Your task to perform on an android device: delete a single message in the gmail app Image 0: 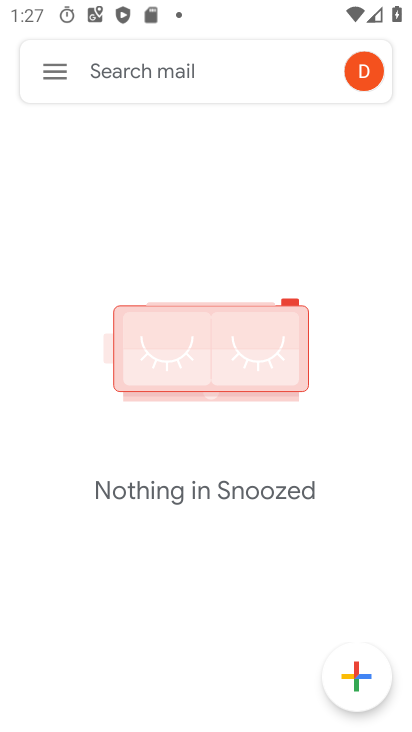
Step 0: press home button
Your task to perform on an android device: delete a single message in the gmail app Image 1: 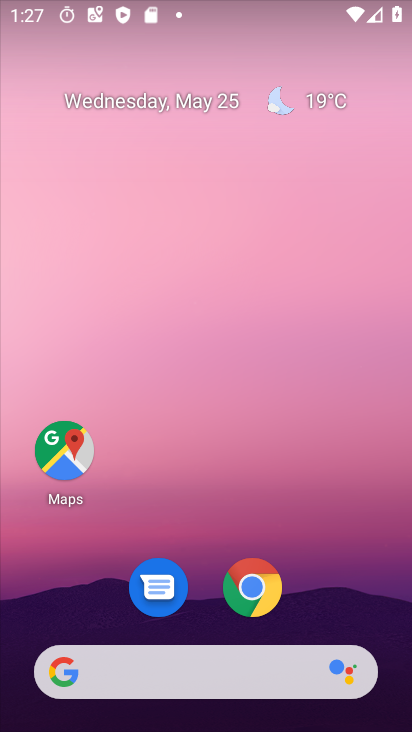
Step 1: drag from (265, 725) to (258, 154)
Your task to perform on an android device: delete a single message in the gmail app Image 2: 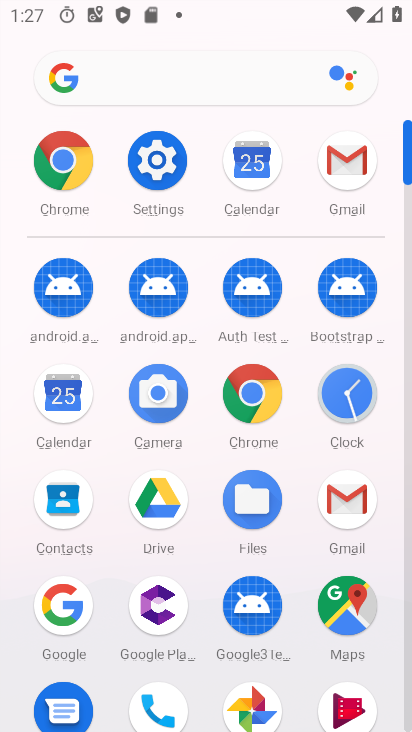
Step 2: click (353, 510)
Your task to perform on an android device: delete a single message in the gmail app Image 3: 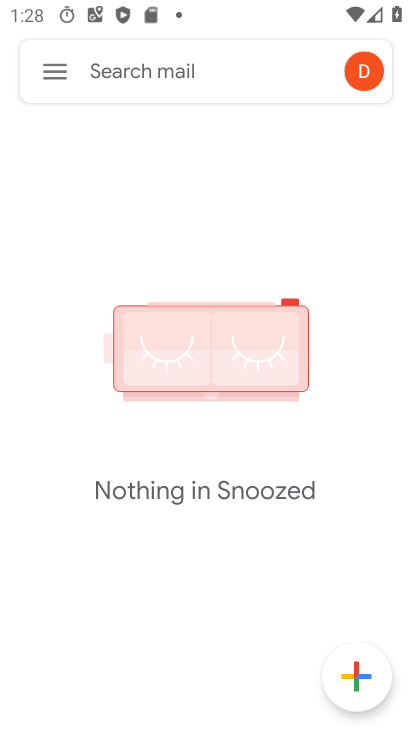
Step 3: click (50, 73)
Your task to perform on an android device: delete a single message in the gmail app Image 4: 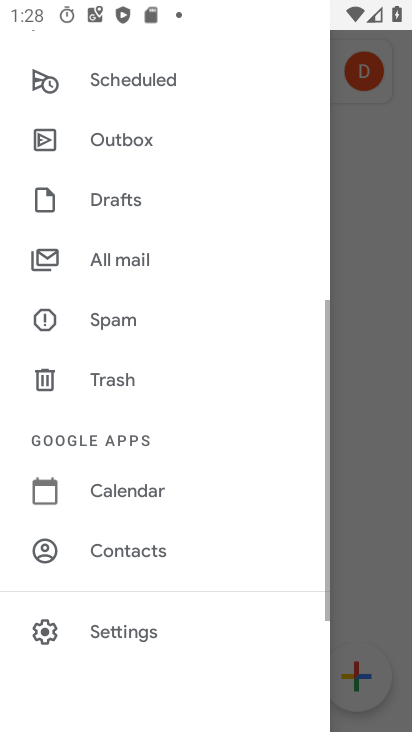
Step 4: drag from (117, 162) to (128, 683)
Your task to perform on an android device: delete a single message in the gmail app Image 5: 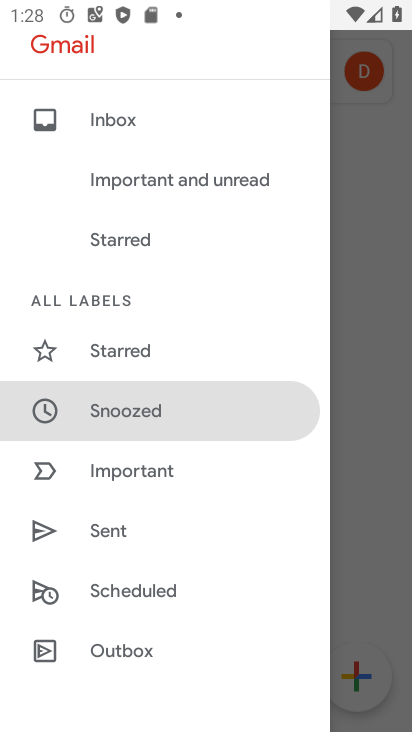
Step 5: click (128, 119)
Your task to perform on an android device: delete a single message in the gmail app Image 6: 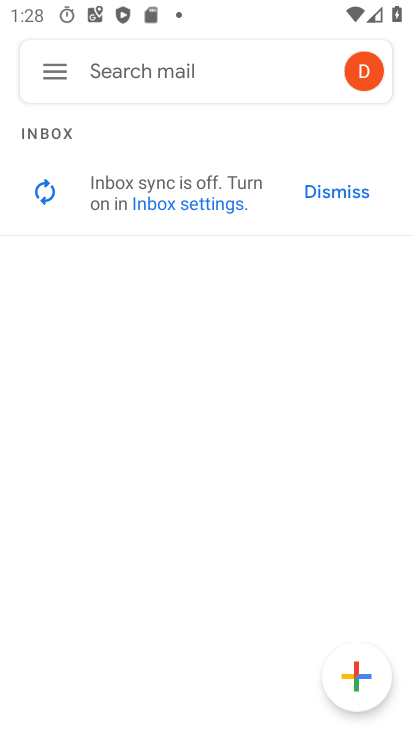
Step 6: task complete